Your task to perform on an android device: turn on bluetooth scan Image 0: 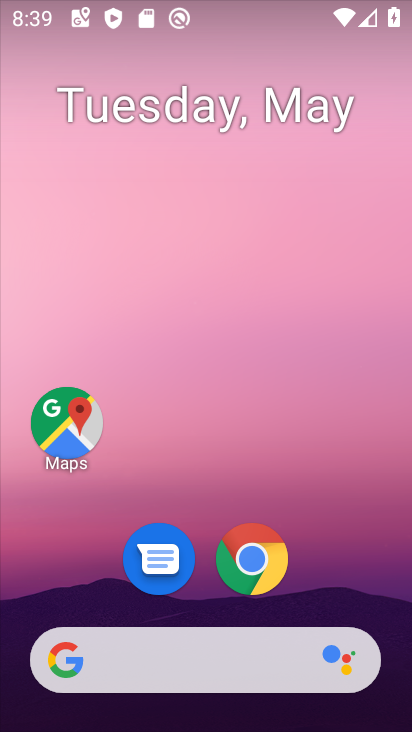
Step 0: drag from (195, 654) to (272, 347)
Your task to perform on an android device: turn on bluetooth scan Image 1: 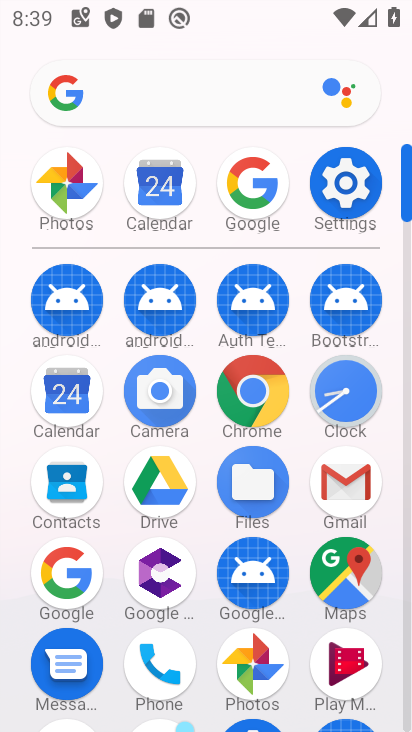
Step 1: click (353, 204)
Your task to perform on an android device: turn on bluetooth scan Image 2: 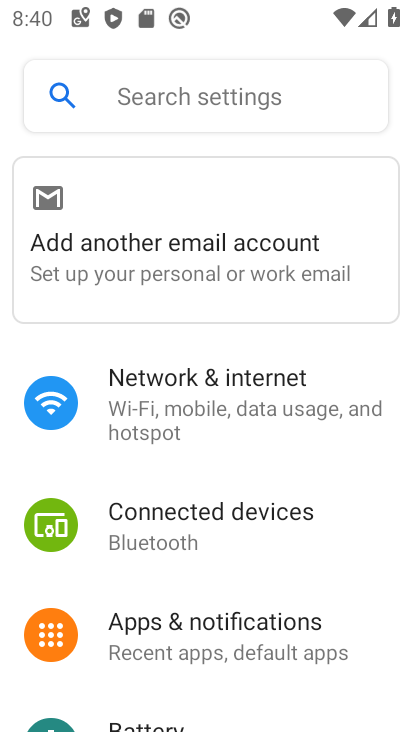
Step 2: drag from (252, 611) to (309, 301)
Your task to perform on an android device: turn on bluetooth scan Image 3: 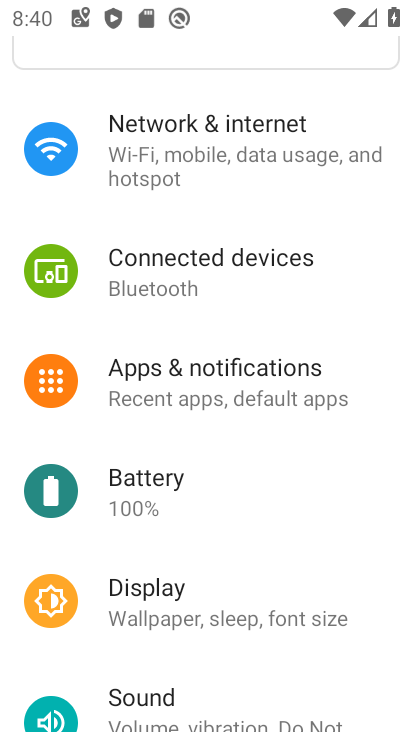
Step 3: drag from (228, 621) to (227, 156)
Your task to perform on an android device: turn on bluetooth scan Image 4: 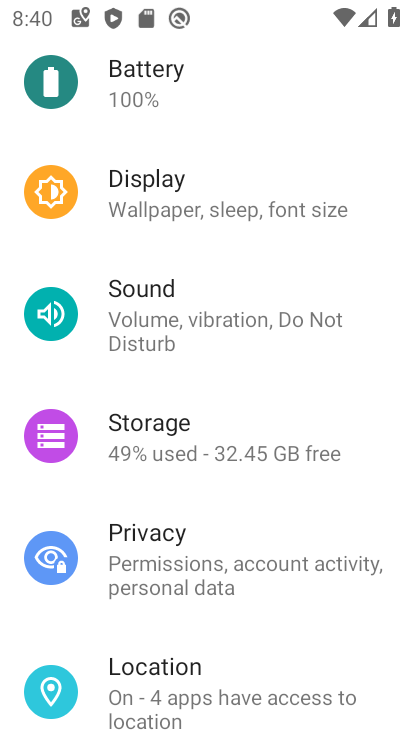
Step 4: click (163, 673)
Your task to perform on an android device: turn on bluetooth scan Image 5: 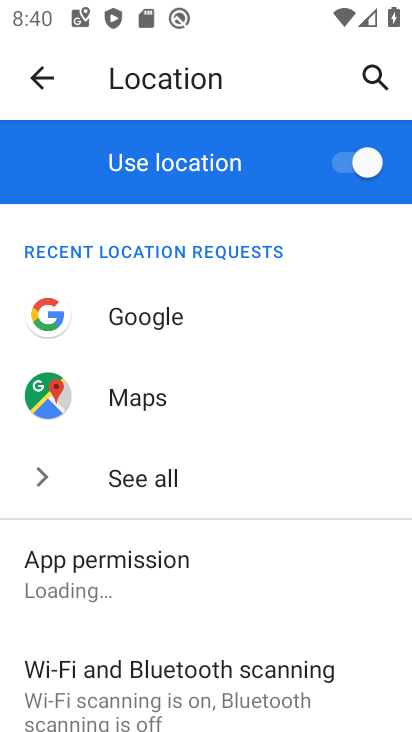
Step 5: drag from (231, 658) to (302, 393)
Your task to perform on an android device: turn on bluetooth scan Image 6: 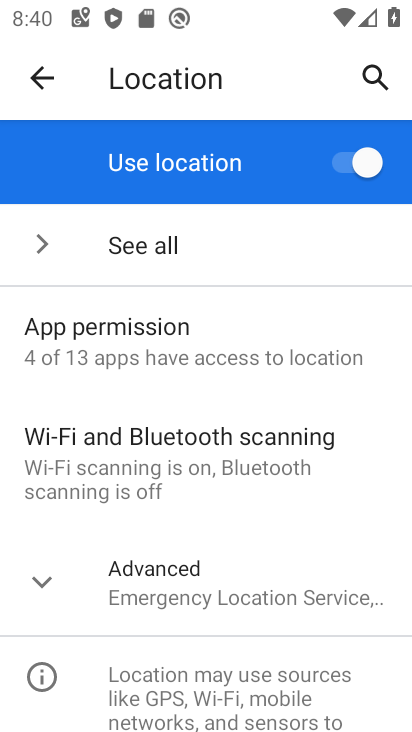
Step 6: click (242, 450)
Your task to perform on an android device: turn on bluetooth scan Image 7: 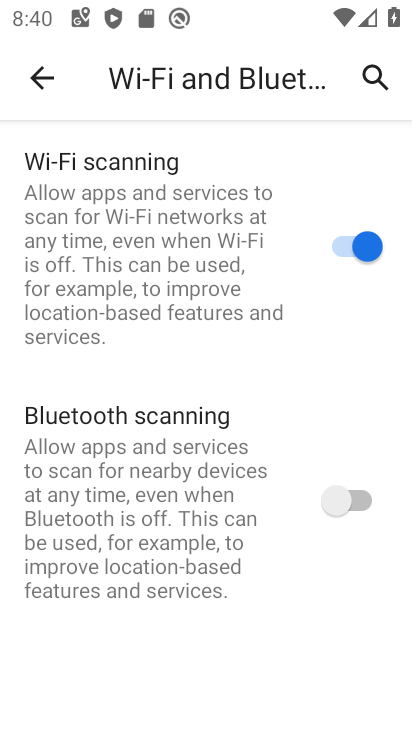
Step 7: click (335, 508)
Your task to perform on an android device: turn on bluetooth scan Image 8: 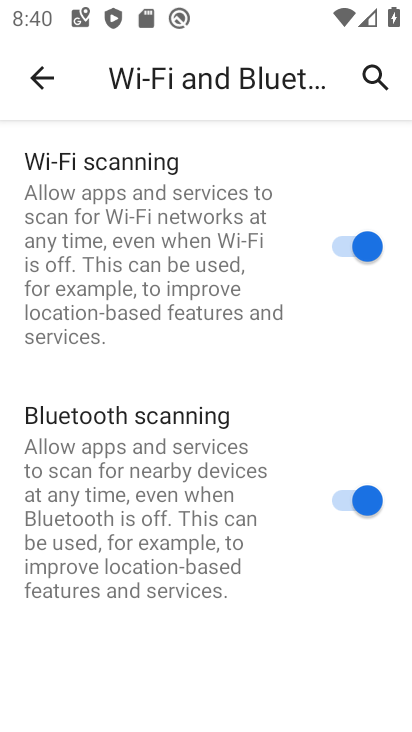
Step 8: task complete